Your task to perform on an android device: Open accessibility settings Image 0: 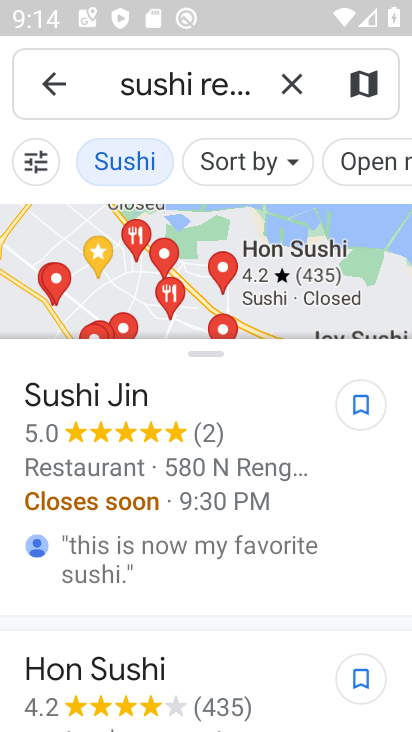
Step 0: press home button
Your task to perform on an android device: Open accessibility settings Image 1: 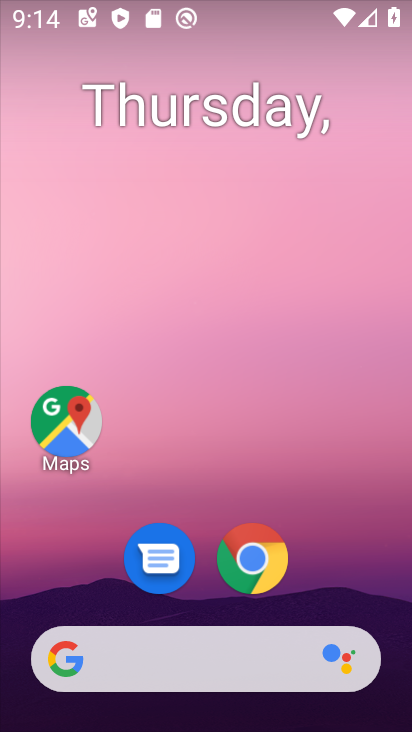
Step 1: drag from (383, 615) to (364, 116)
Your task to perform on an android device: Open accessibility settings Image 2: 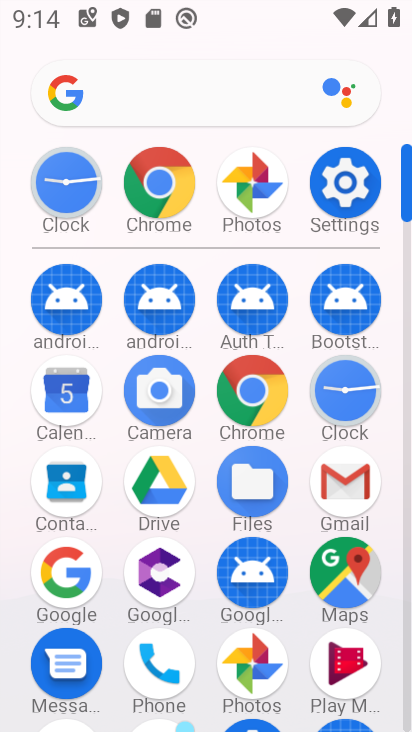
Step 2: click (408, 674)
Your task to perform on an android device: Open accessibility settings Image 3: 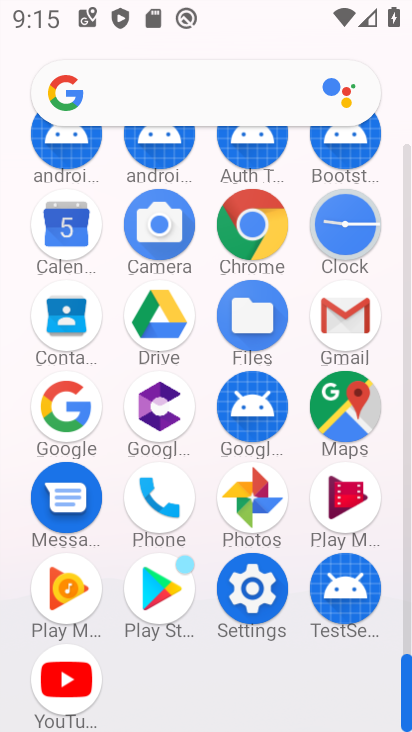
Step 3: click (251, 586)
Your task to perform on an android device: Open accessibility settings Image 4: 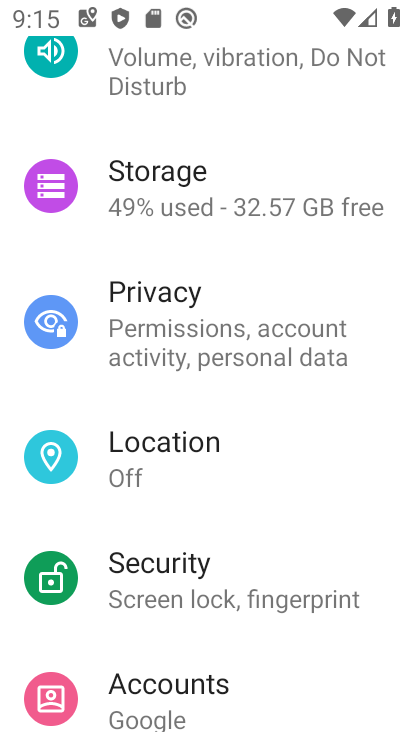
Step 4: drag from (320, 624) to (323, 208)
Your task to perform on an android device: Open accessibility settings Image 5: 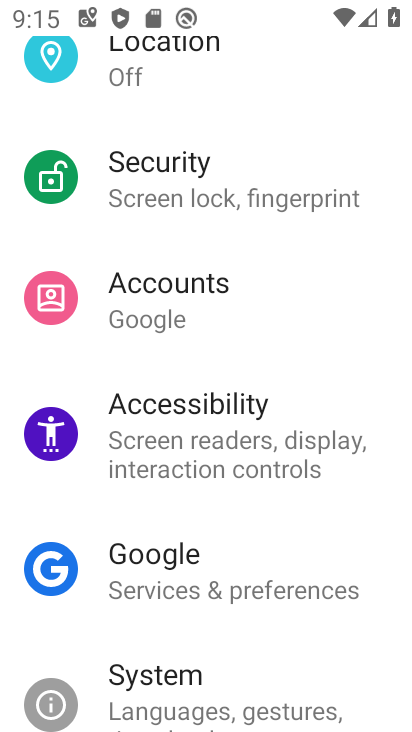
Step 5: click (149, 424)
Your task to perform on an android device: Open accessibility settings Image 6: 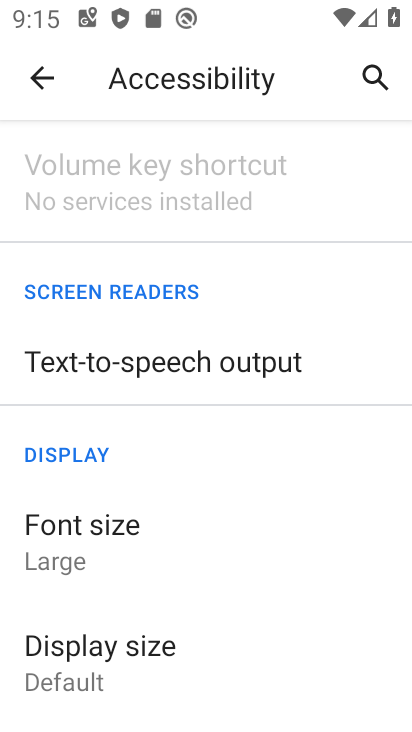
Step 6: task complete